Your task to perform on an android device: install app "AliExpress" Image 0: 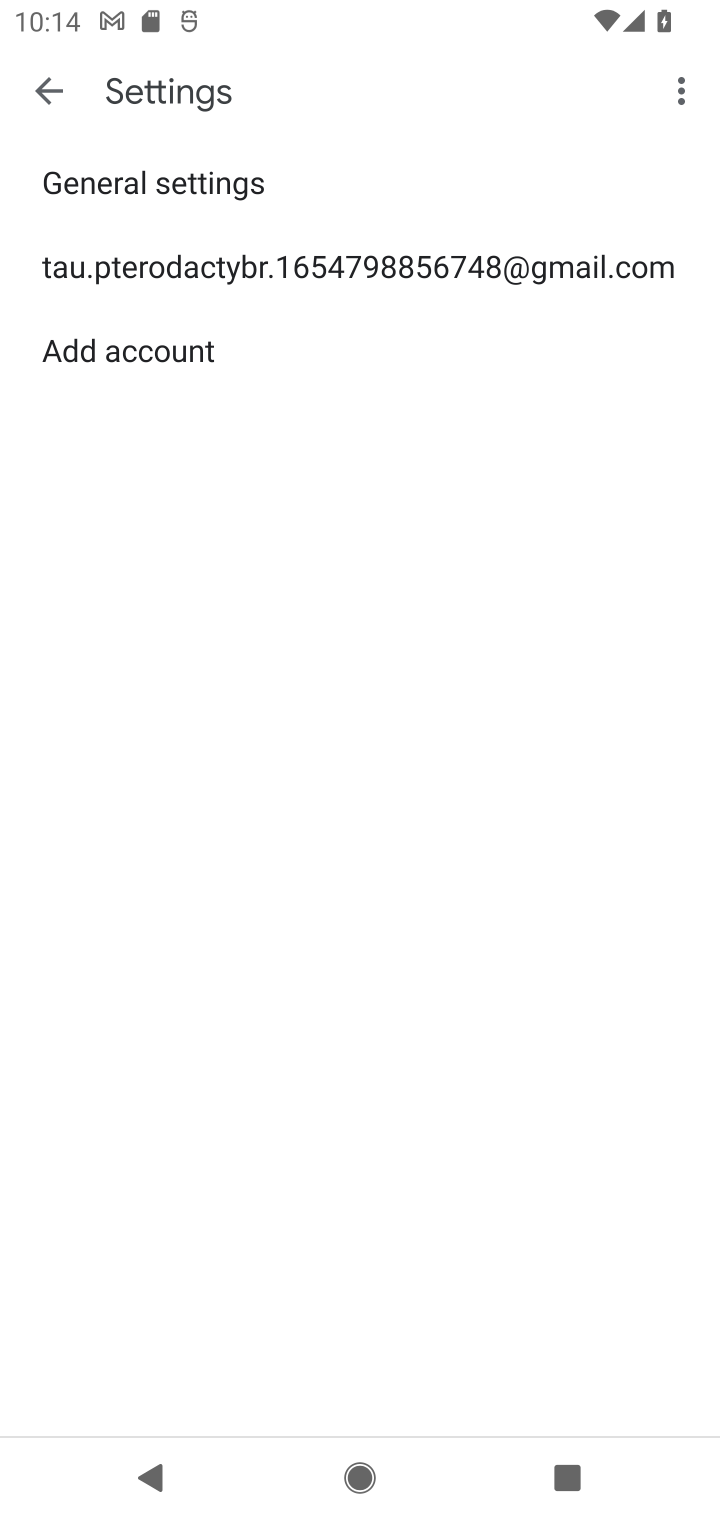
Step 0: press home button
Your task to perform on an android device: install app "AliExpress" Image 1: 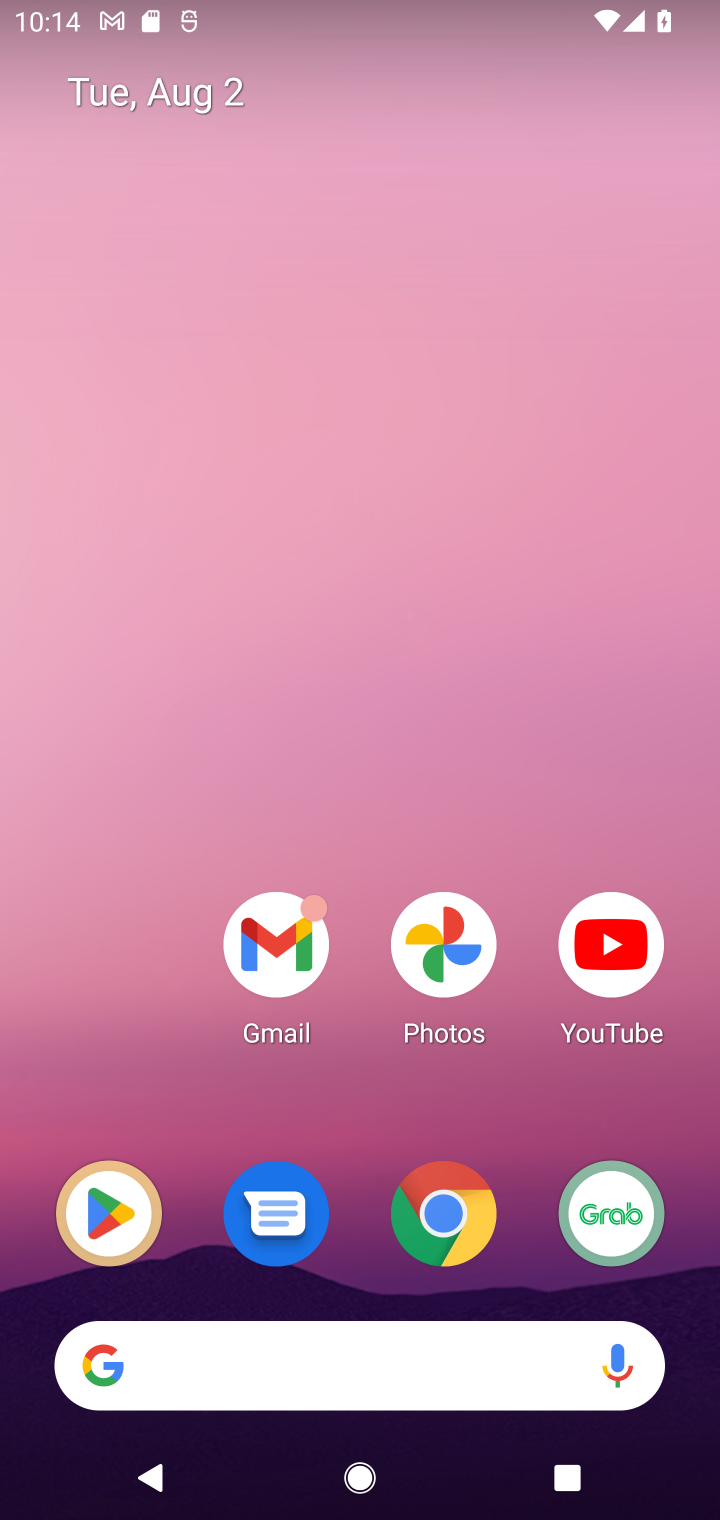
Step 1: click (107, 1212)
Your task to perform on an android device: install app "AliExpress" Image 2: 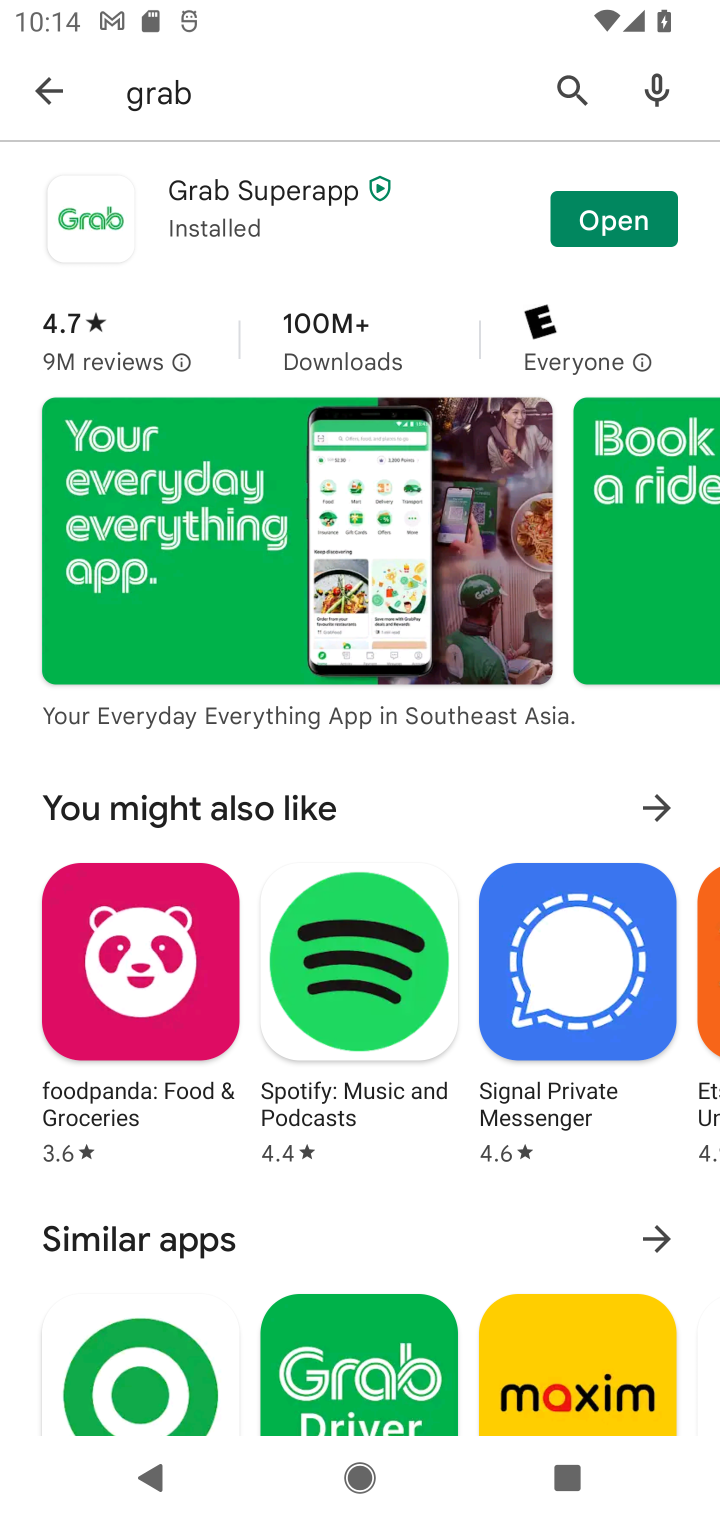
Step 2: click (40, 74)
Your task to perform on an android device: install app "AliExpress" Image 3: 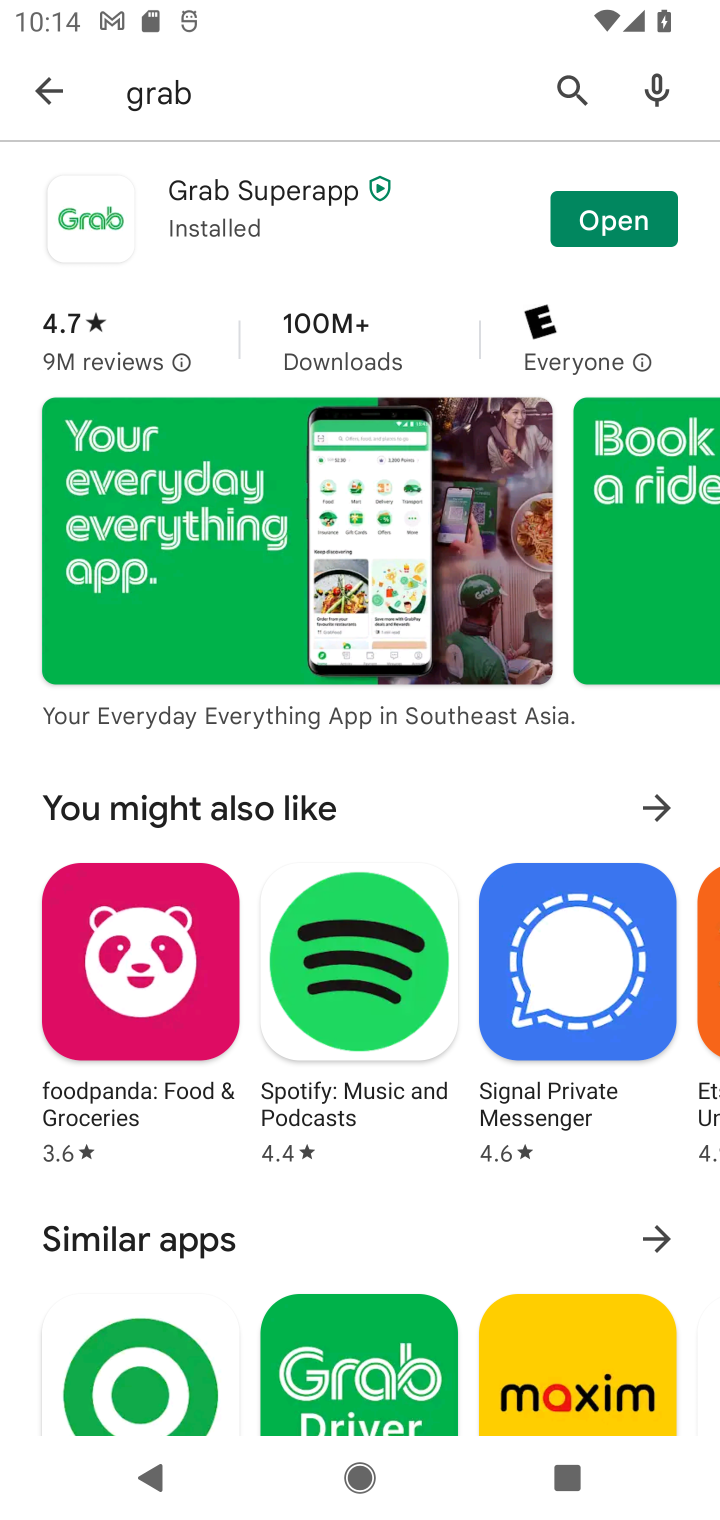
Step 3: click (47, 90)
Your task to perform on an android device: install app "AliExpress" Image 4: 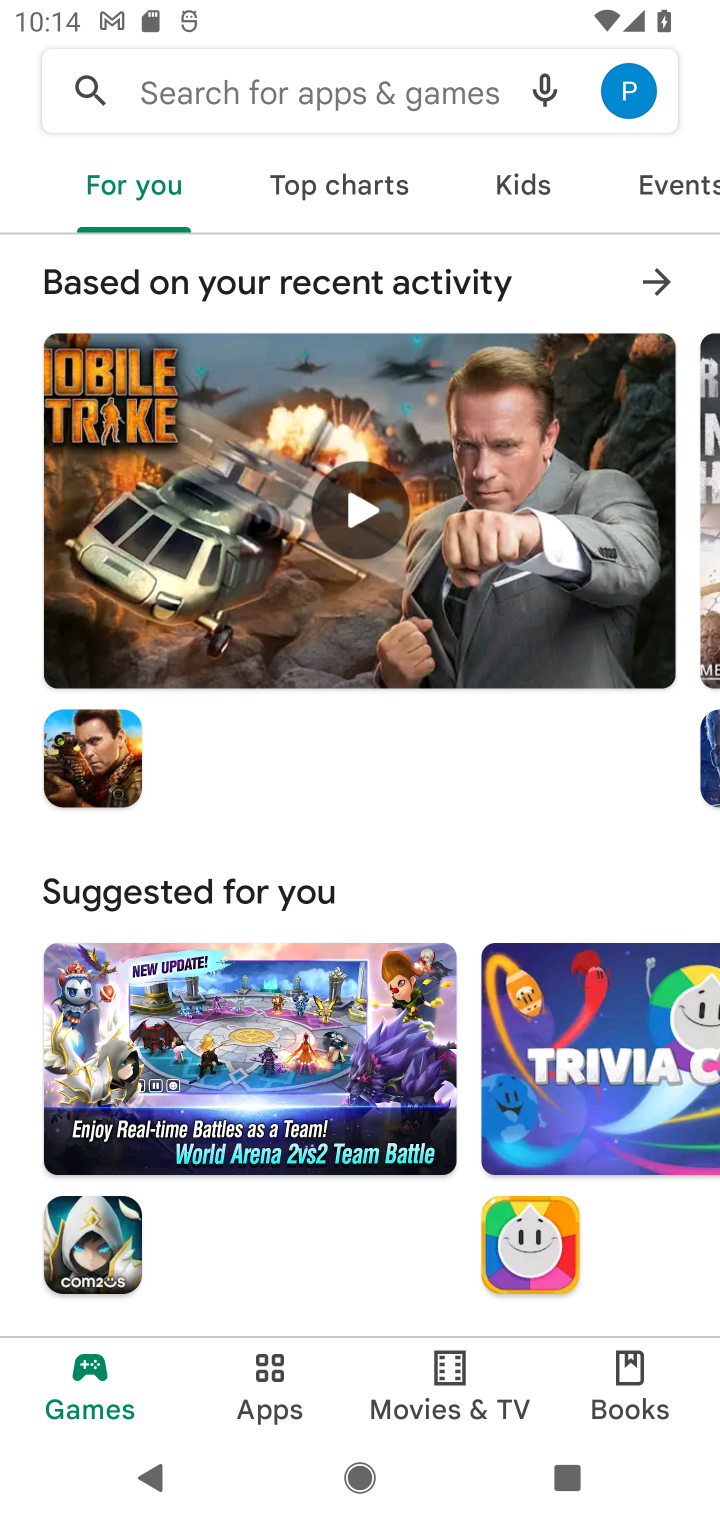
Step 4: click (227, 92)
Your task to perform on an android device: install app "AliExpress" Image 5: 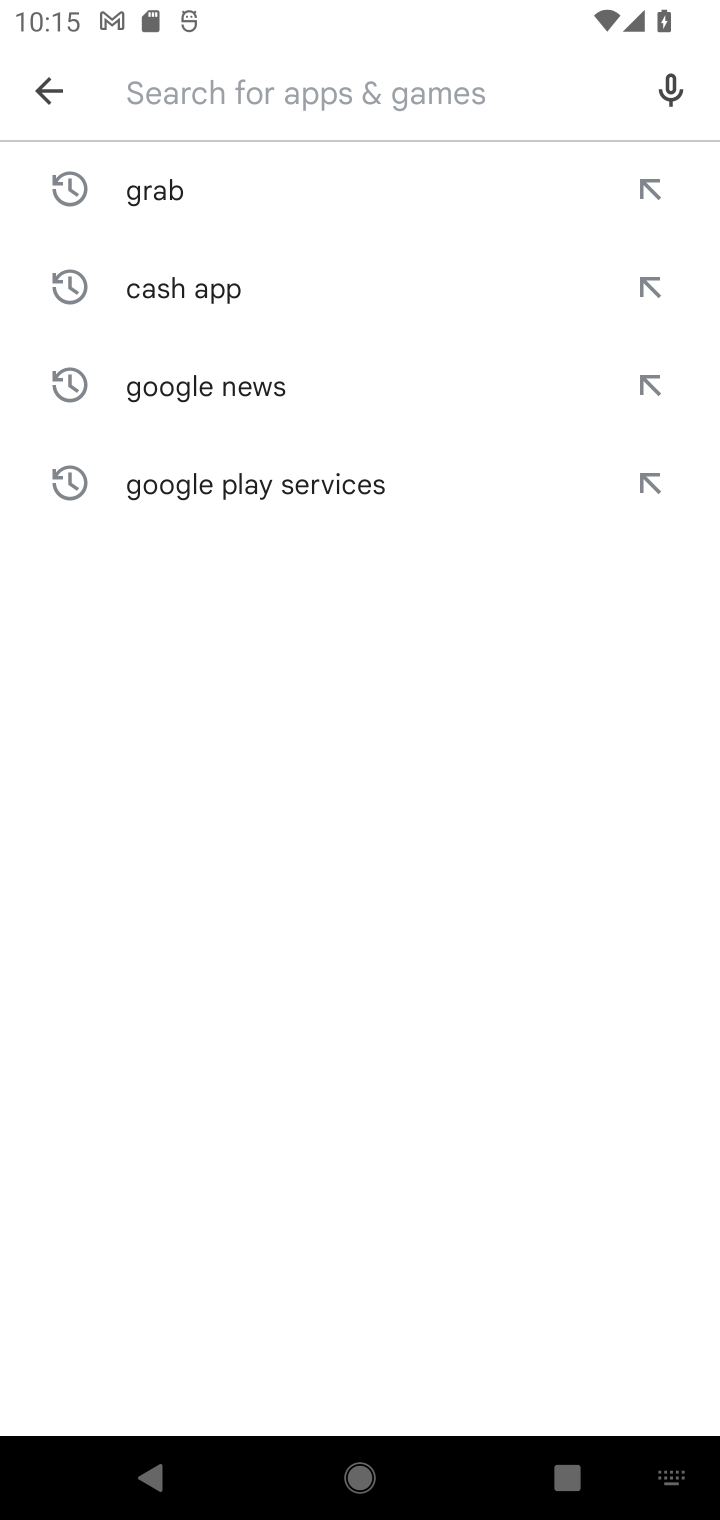
Step 5: type "AliExpress"
Your task to perform on an android device: install app "AliExpress" Image 6: 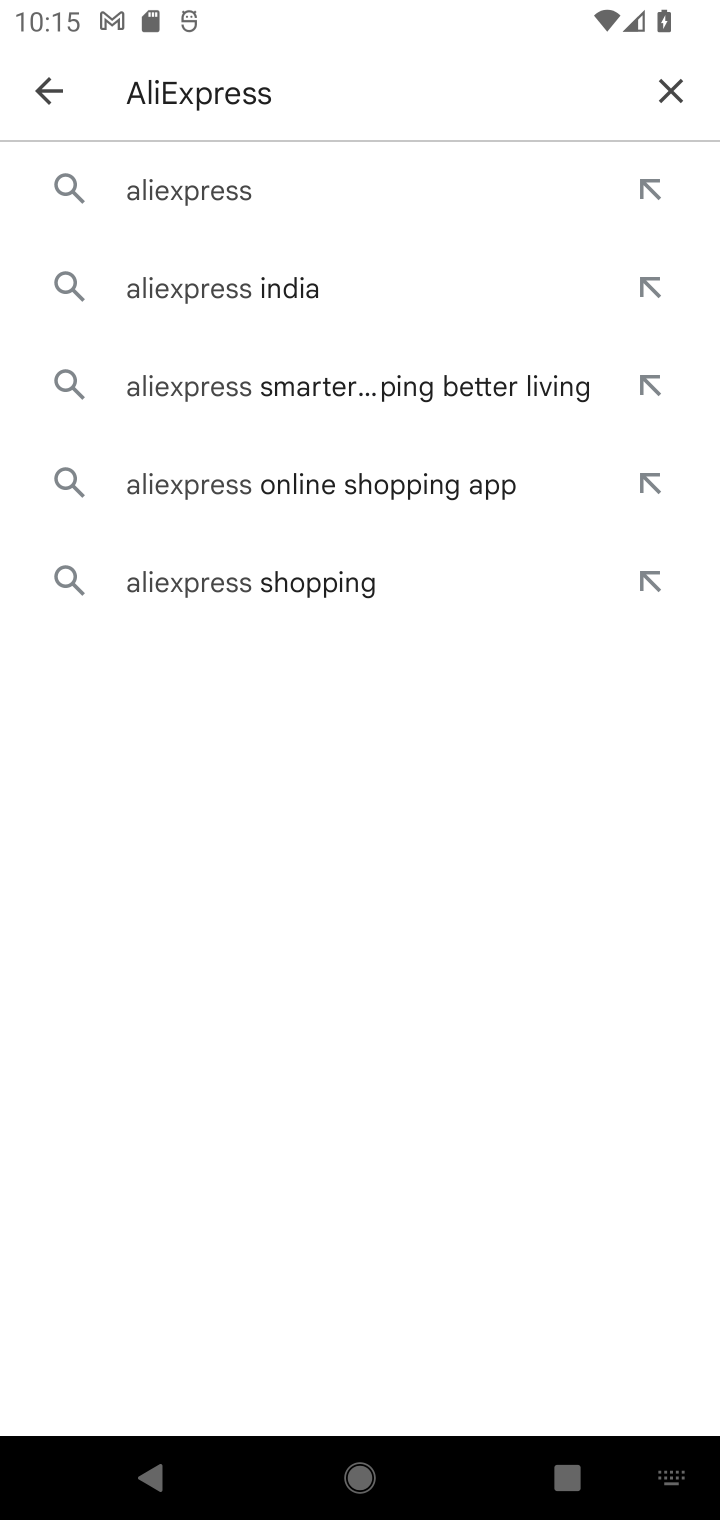
Step 6: click (213, 188)
Your task to perform on an android device: install app "AliExpress" Image 7: 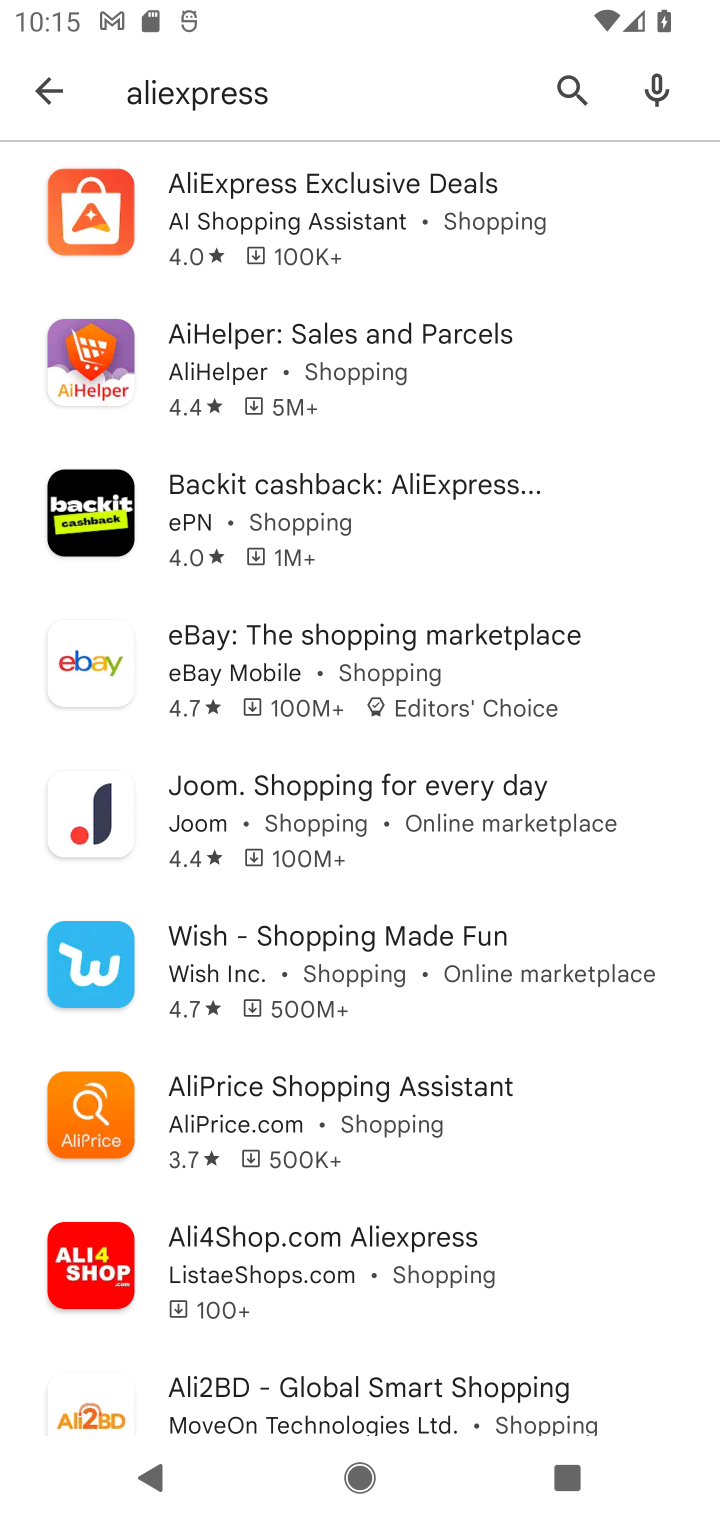
Step 7: click (340, 213)
Your task to perform on an android device: install app "AliExpress" Image 8: 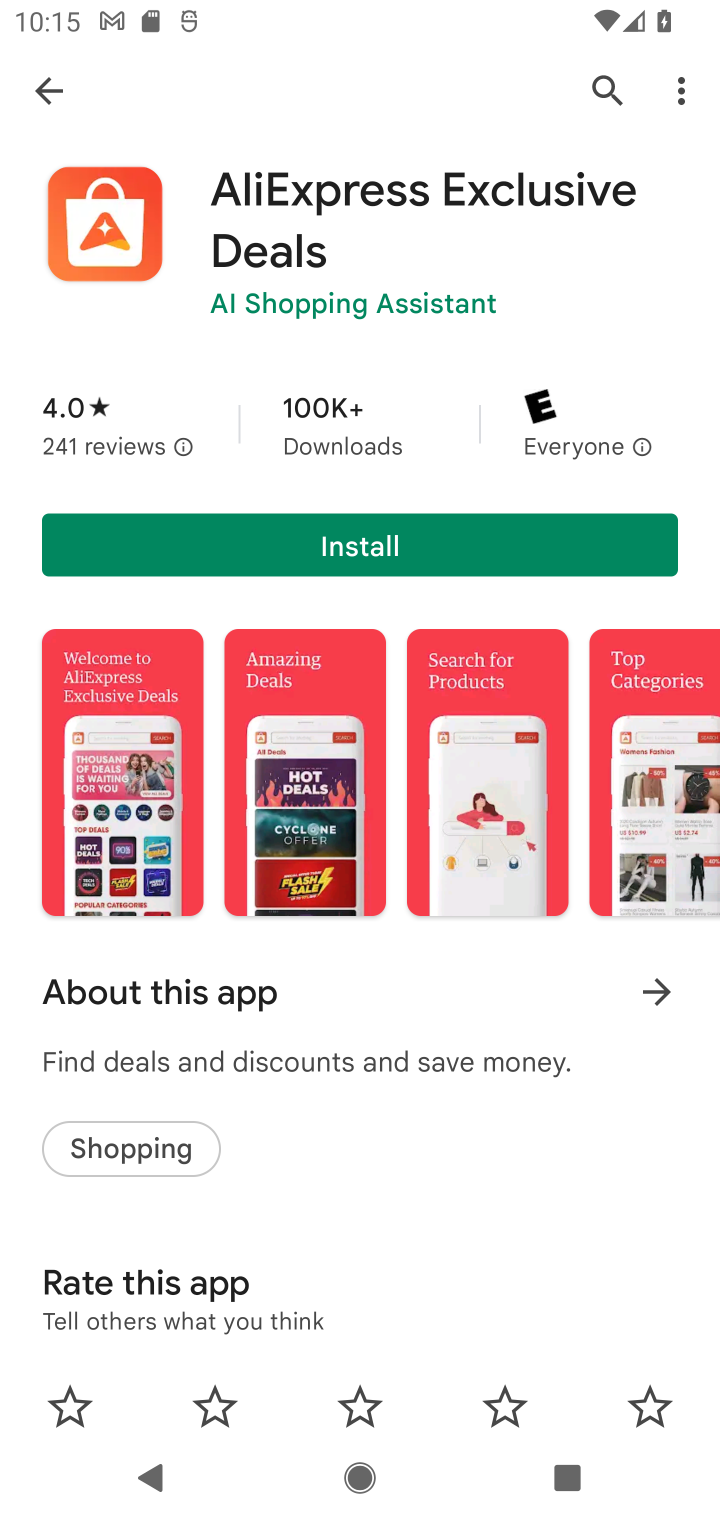
Step 8: click (331, 541)
Your task to perform on an android device: install app "AliExpress" Image 9: 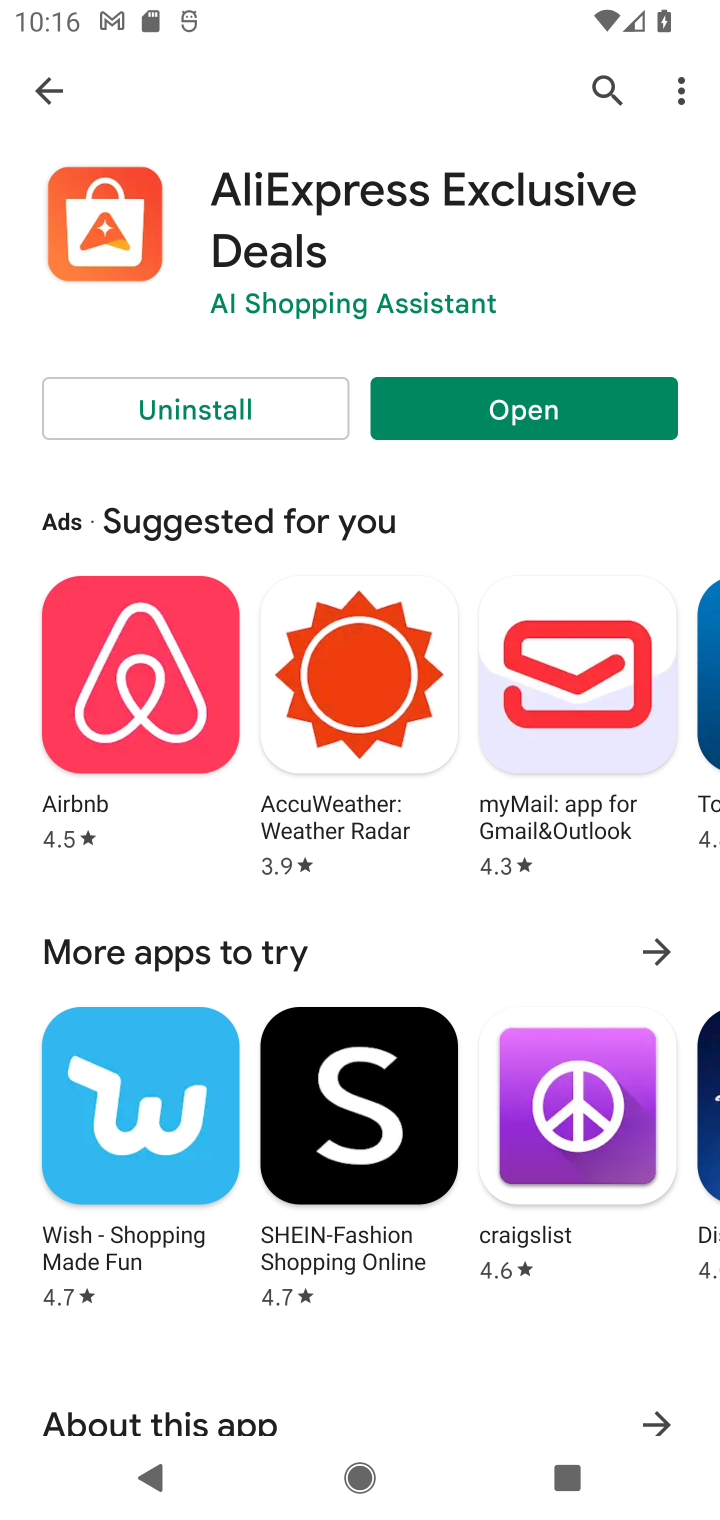
Step 9: click (461, 419)
Your task to perform on an android device: install app "AliExpress" Image 10: 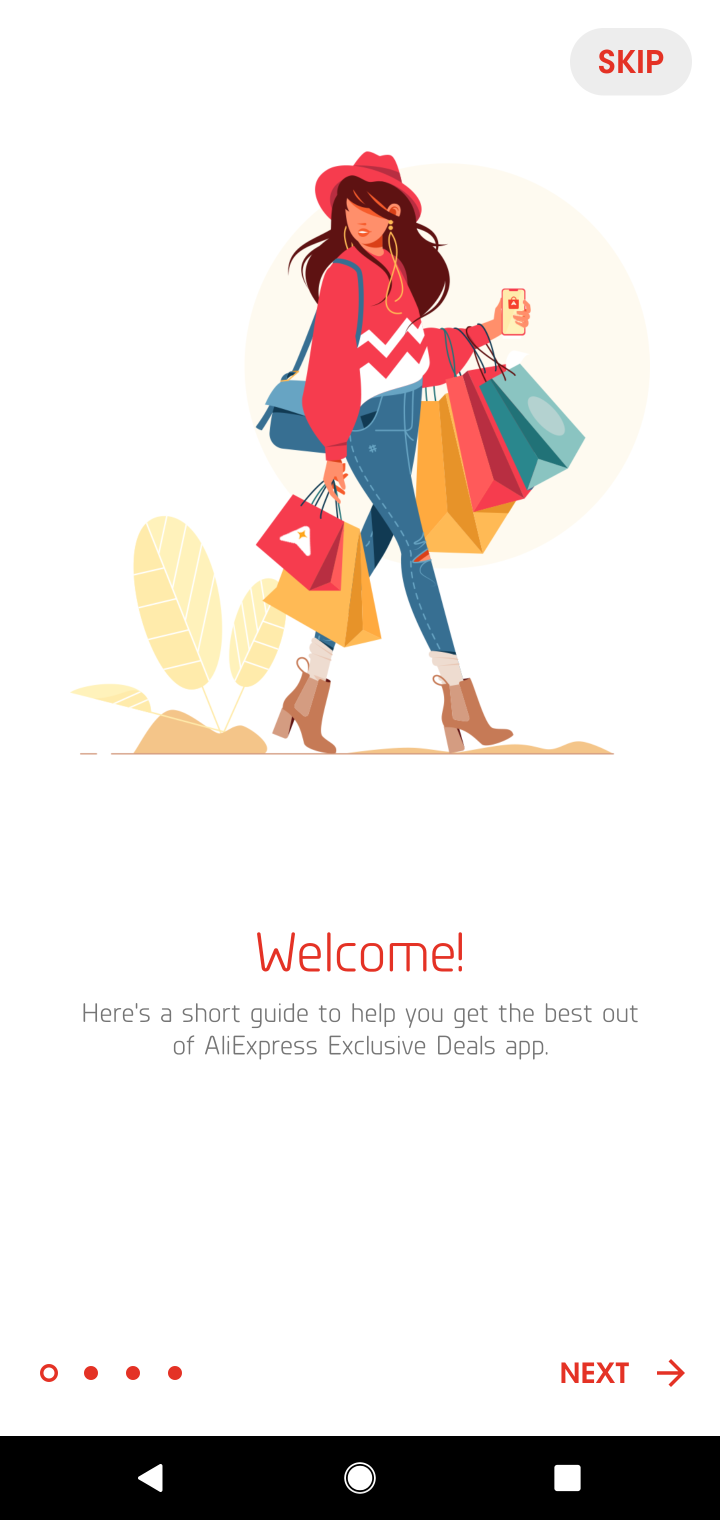
Step 10: click (596, 1379)
Your task to perform on an android device: install app "AliExpress" Image 11: 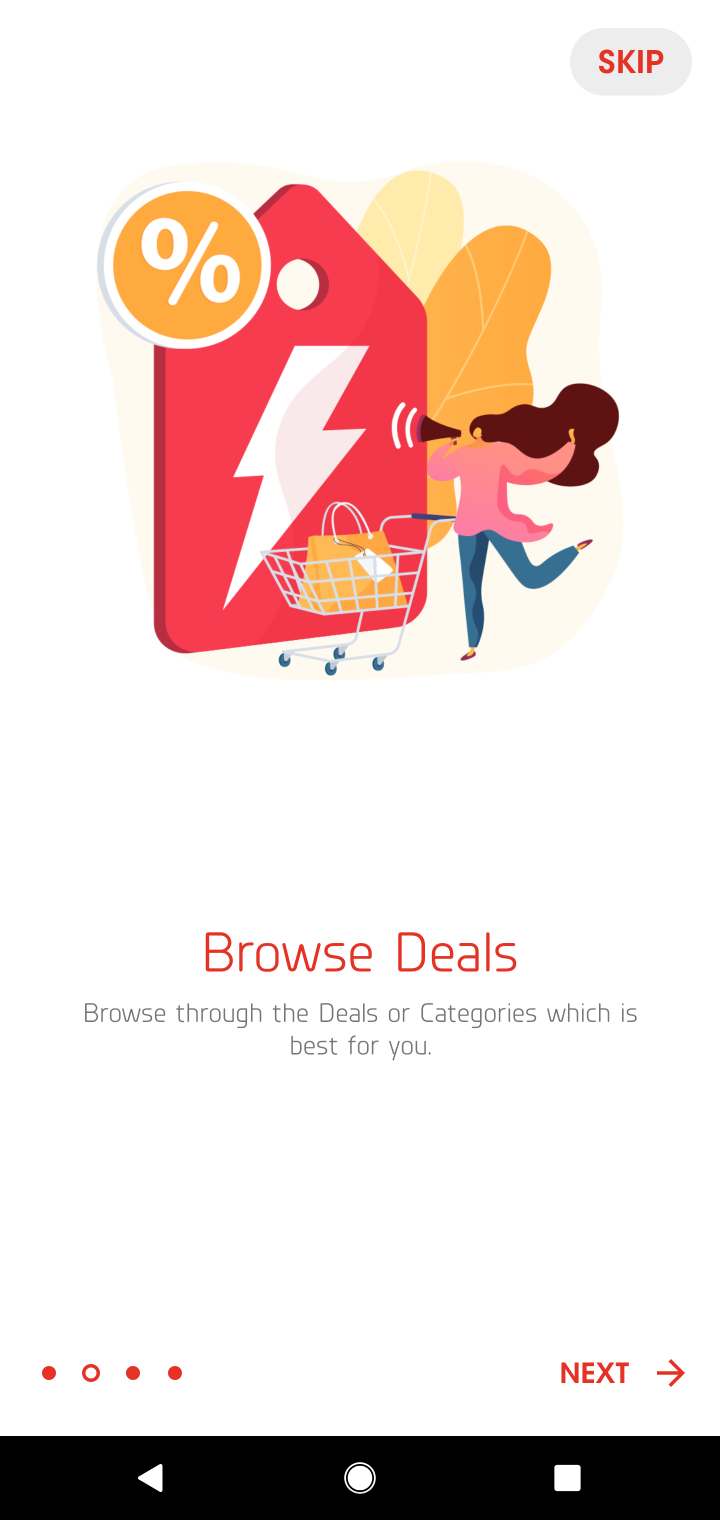
Step 11: click (596, 1379)
Your task to perform on an android device: install app "AliExpress" Image 12: 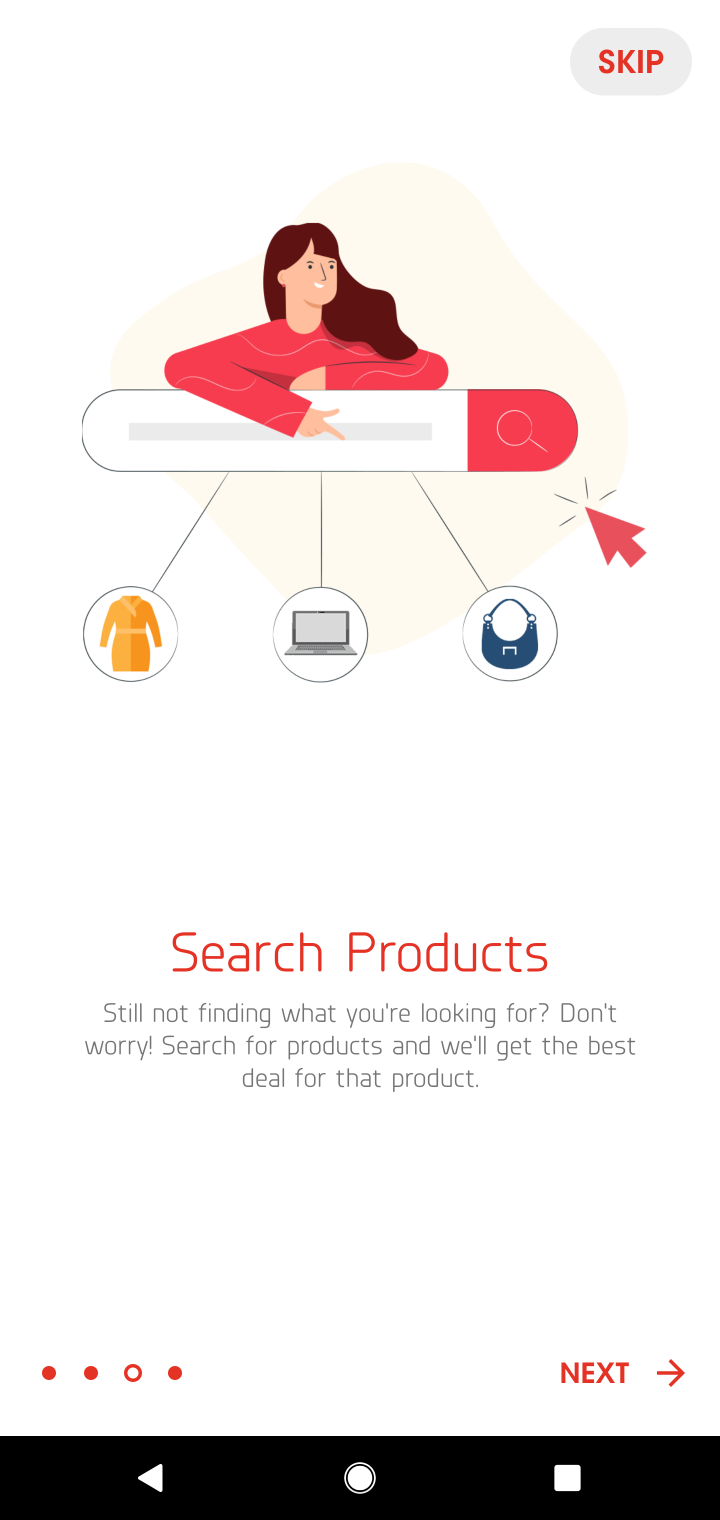
Step 12: task complete